Your task to perform on an android device: What's the weather? Image 0: 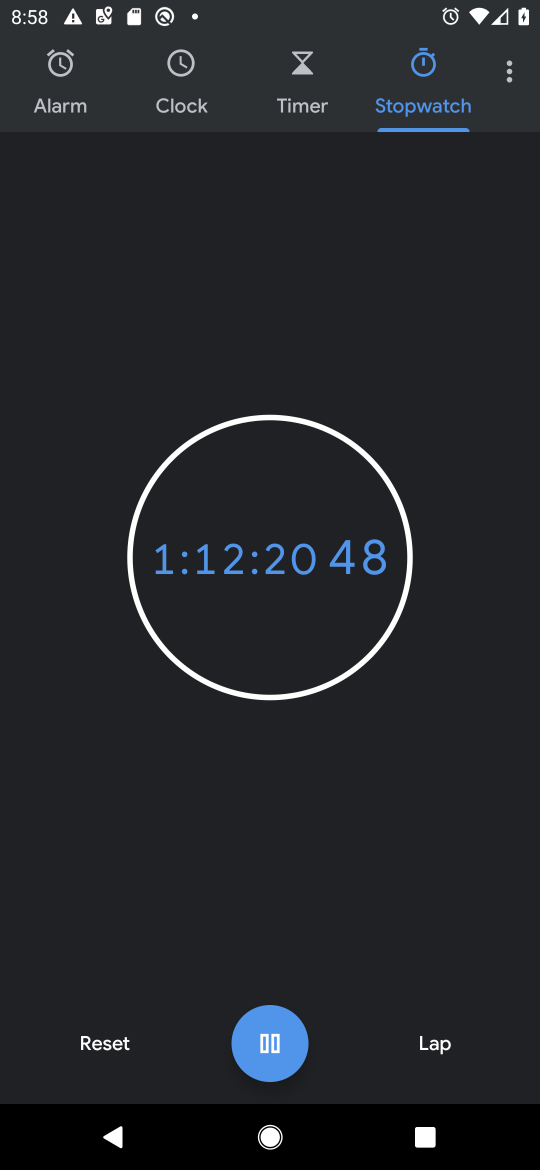
Step 0: press home button
Your task to perform on an android device: What's the weather? Image 1: 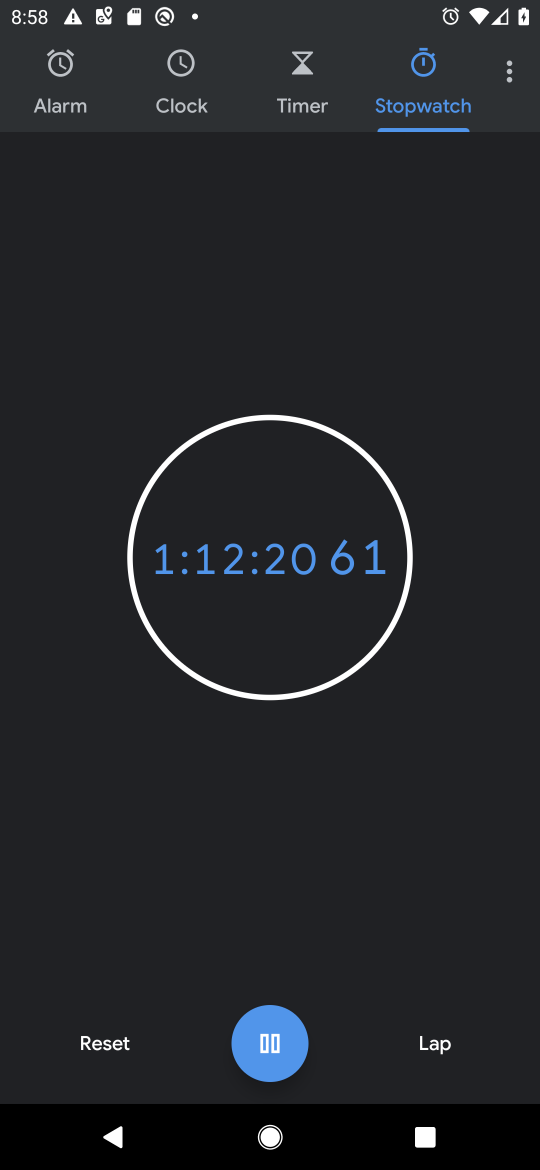
Step 1: click (319, 180)
Your task to perform on an android device: What's the weather? Image 2: 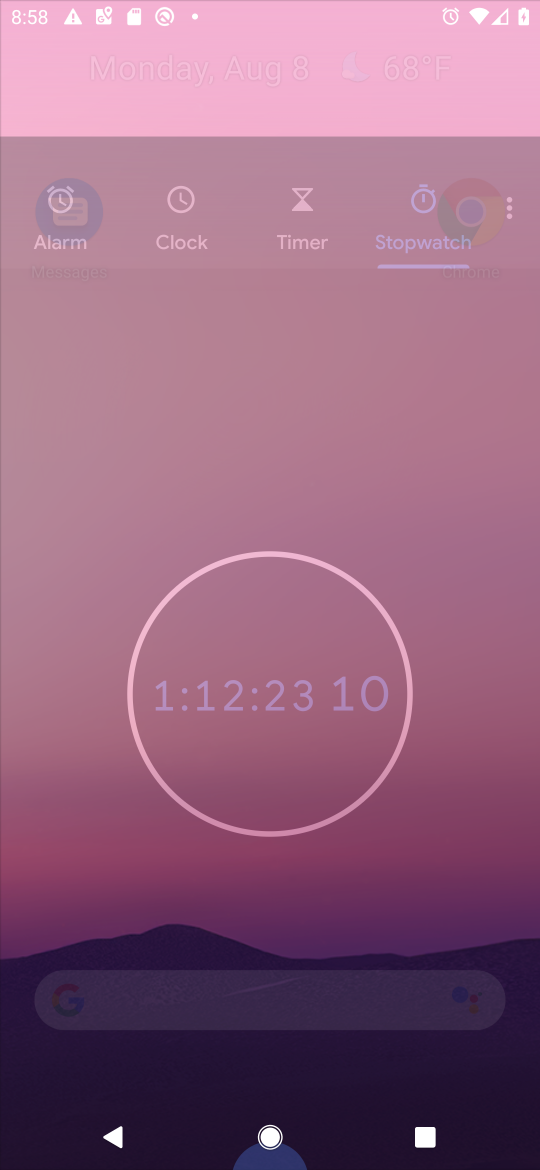
Step 2: drag from (358, 985) to (456, 142)
Your task to perform on an android device: What's the weather? Image 3: 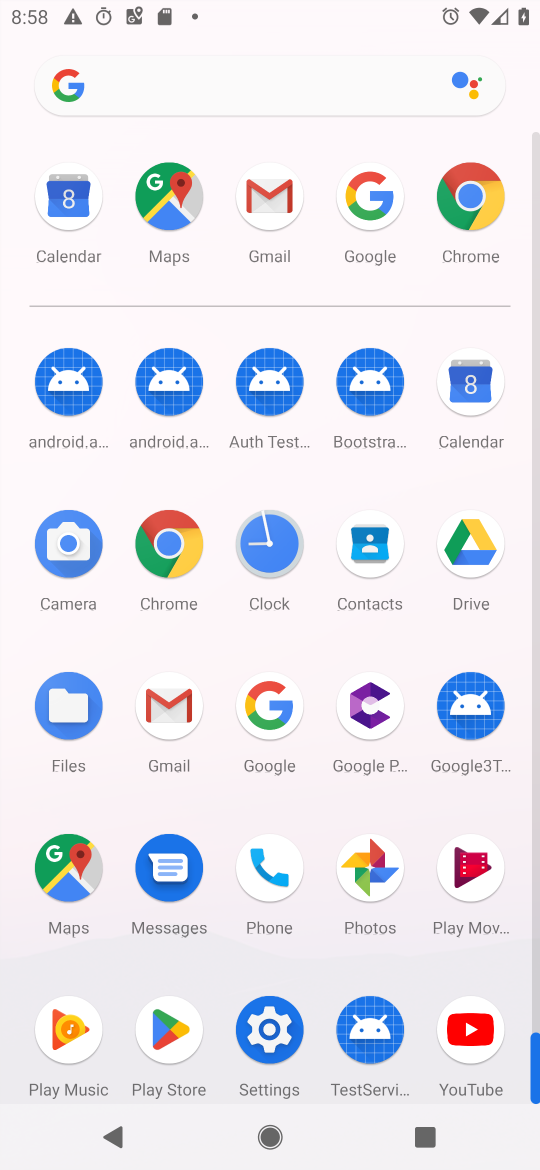
Step 3: click (129, 77)
Your task to perform on an android device: What's the weather? Image 4: 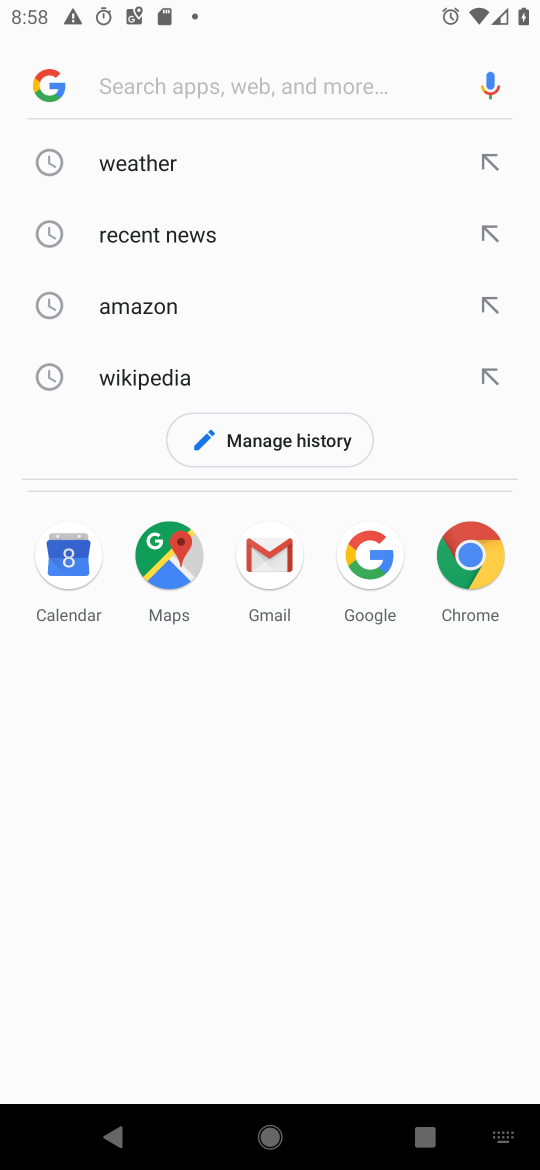
Step 4: click (254, 154)
Your task to perform on an android device: What's the weather? Image 5: 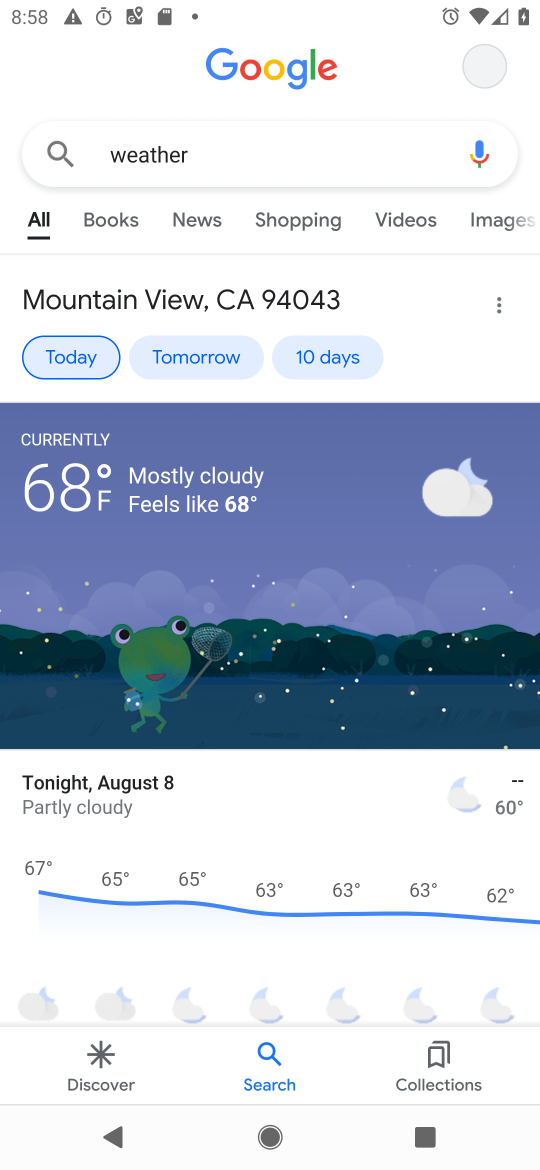
Step 5: task complete